Your task to perform on an android device: turn on javascript in the chrome app Image 0: 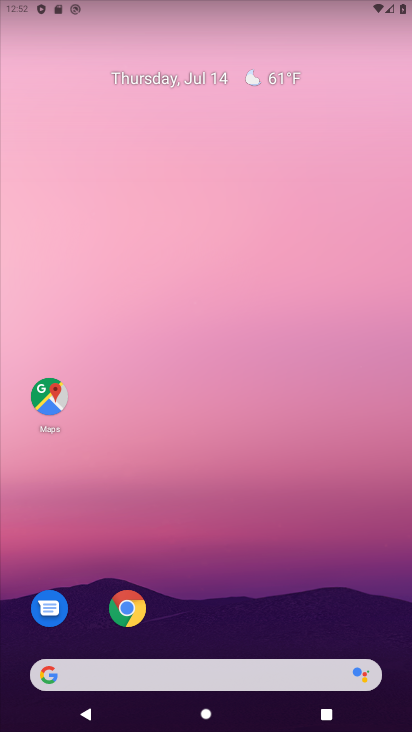
Step 0: drag from (347, 613) to (371, 109)
Your task to perform on an android device: turn on javascript in the chrome app Image 1: 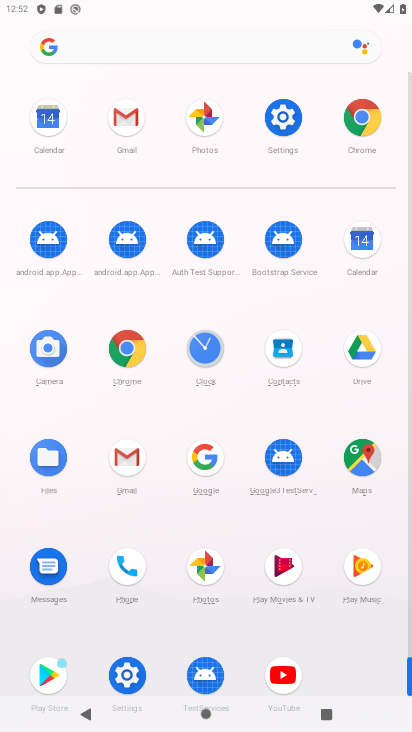
Step 1: click (365, 115)
Your task to perform on an android device: turn on javascript in the chrome app Image 2: 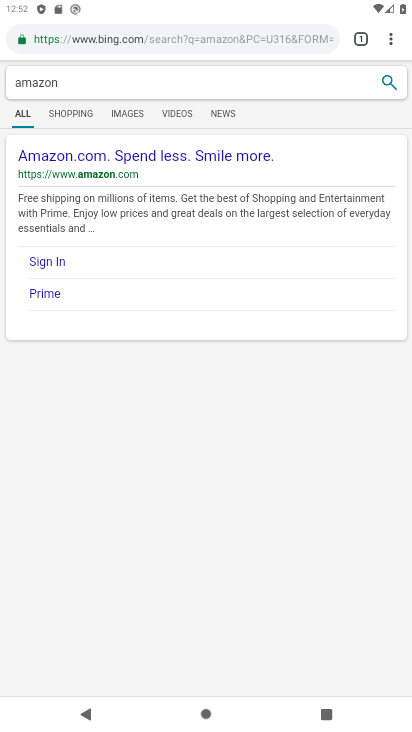
Step 2: click (390, 32)
Your task to perform on an android device: turn on javascript in the chrome app Image 3: 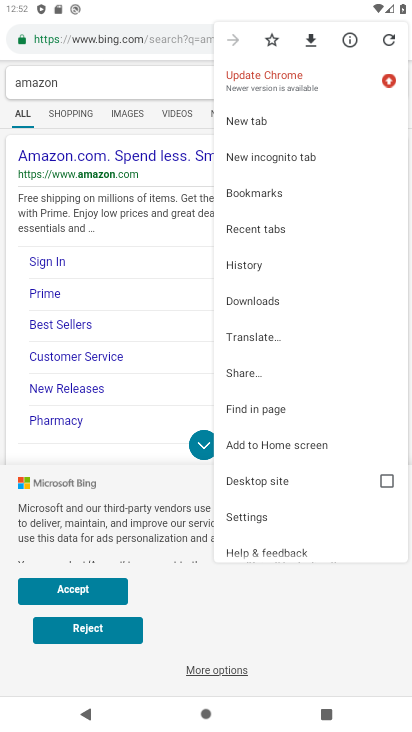
Step 3: click (293, 516)
Your task to perform on an android device: turn on javascript in the chrome app Image 4: 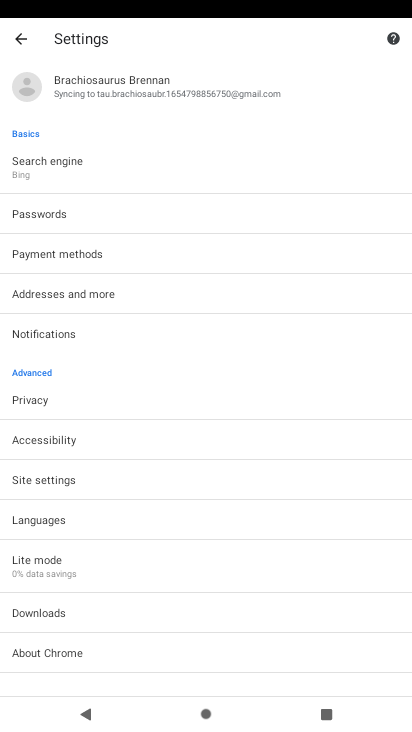
Step 4: drag from (306, 539) to (308, 449)
Your task to perform on an android device: turn on javascript in the chrome app Image 5: 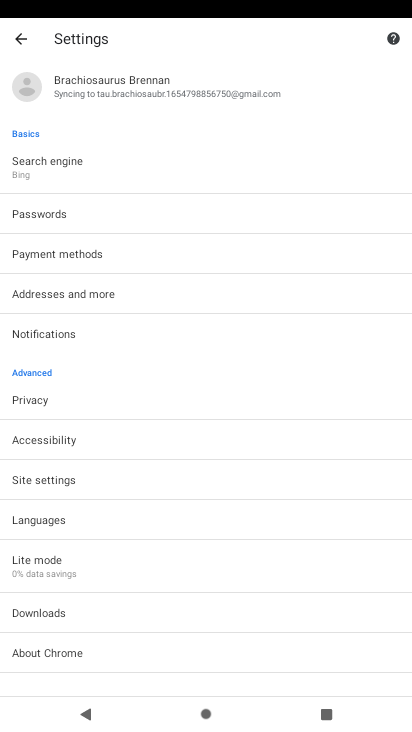
Step 5: click (251, 484)
Your task to perform on an android device: turn on javascript in the chrome app Image 6: 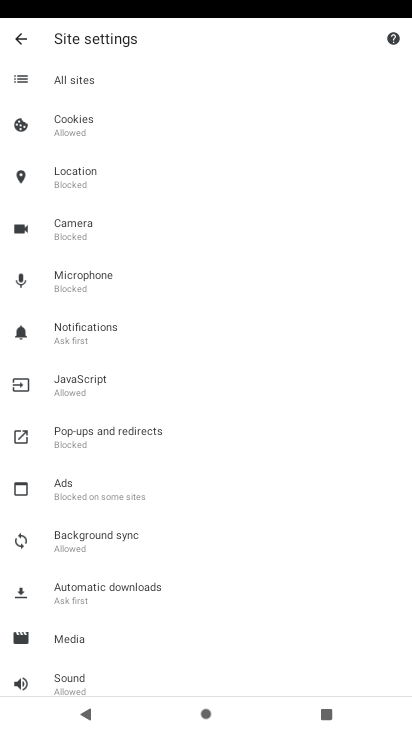
Step 6: click (136, 385)
Your task to perform on an android device: turn on javascript in the chrome app Image 7: 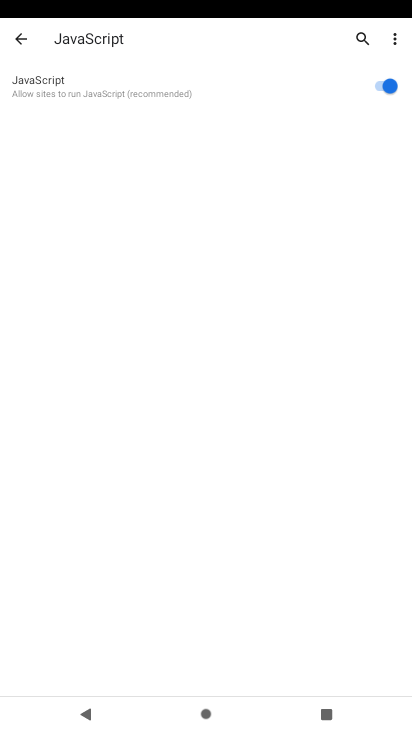
Step 7: task complete